Your task to perform on an android device: Open Google Chrome and click the shortcut for Amazon.com Image 0: 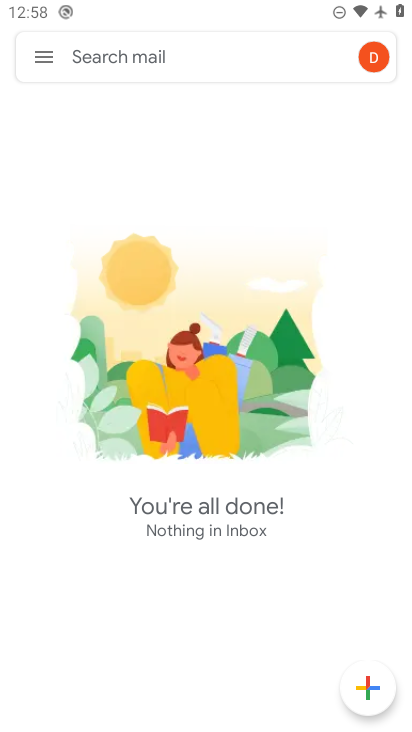
Step 0: press home button
Your task to perform on an android device: Open Google Chrome and click the shortcut for Amazon.com Image 1: 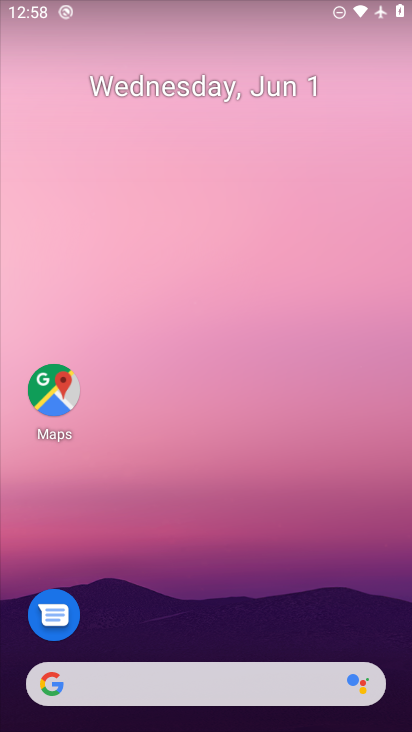
Step 1: drag from (279, 625) to (234, 128)
Your task to perform on an android device: Open Google Chrome and click the shortcut for Amazon.com Image 2: 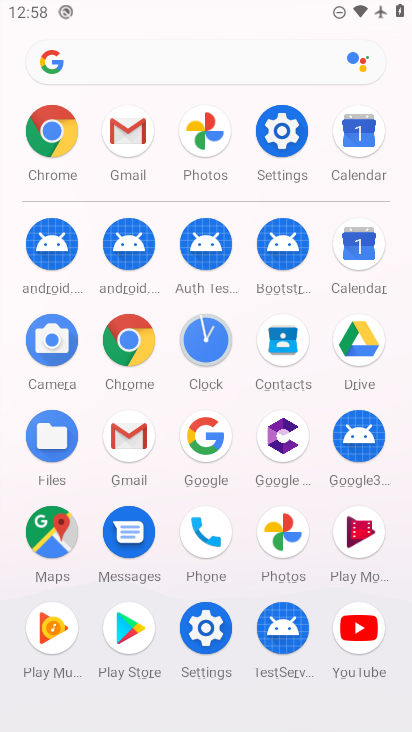
Step 2: click (133, 363)
Your task to perform on an android device: Open Google Chrome and click the shortcut for Amazon.com Image 3: 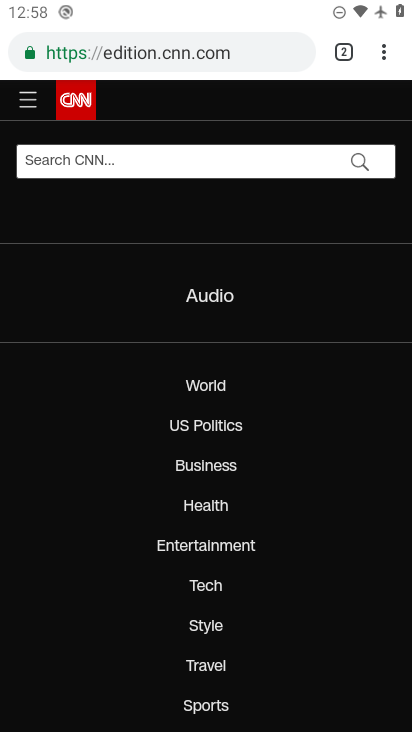
Step 3: click (381, 61)
Your task to perform on an android device: Open Google Chrome and click the shortcut for Amazon.com Image 4: 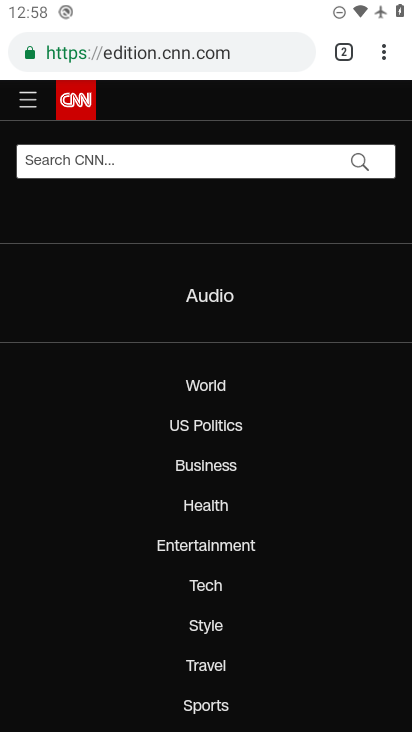
Step 4: click (388, 52)
Your task to perform on an android device: Open Google Chrome and click the shortcut for Amazon.com Image 5: 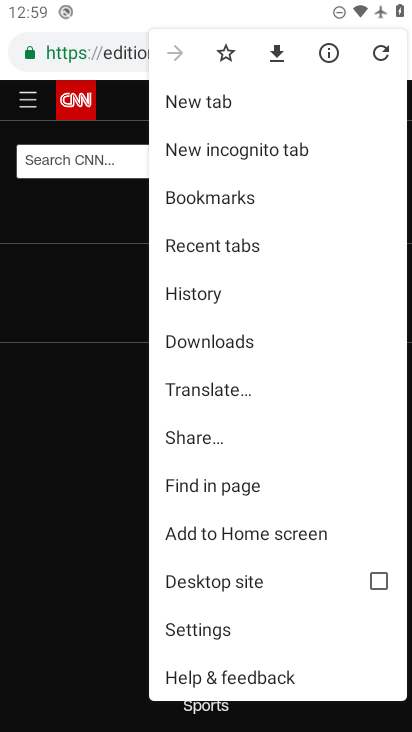
Step 5: click (86, 134)
Your task to perform on an android device: Open Google Chrome and click the shortcut for Amazon.com Image 6: 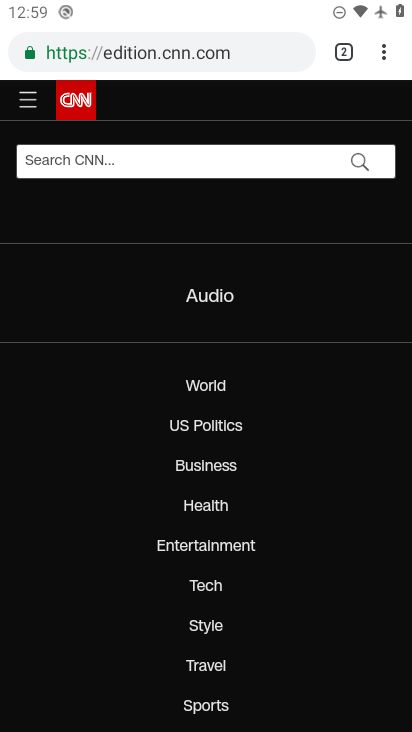
Step 6: click (236, 49)
Your task to perform on an android device: Open Google Chrome and click the shortcut for Amazon.com Image 7: 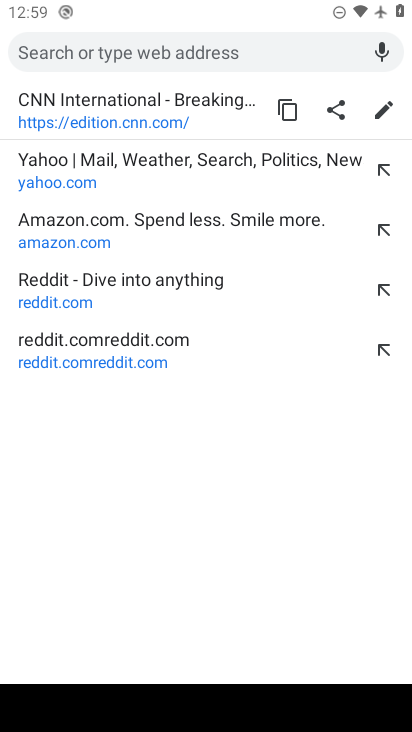
Step 7: type "amazon"
Your task to perform on an android device: Open Google Chrome and click the shortcut for Amazon.com Image 8: 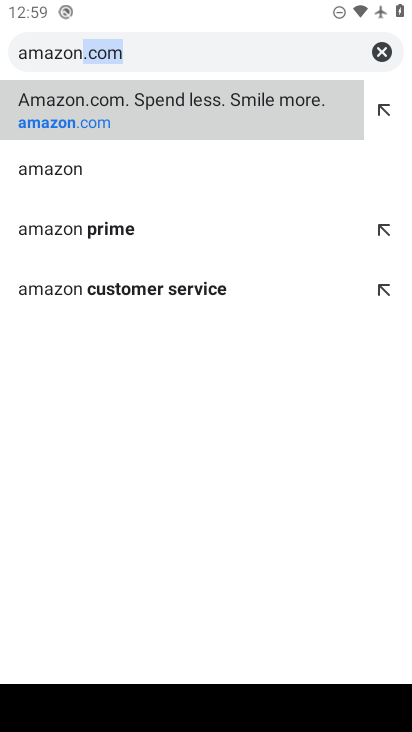
Step 8: click (144, 133)
Your task to perform on an android device: Open Google Chrome and click the shortcut for Amazon.com Image 9: 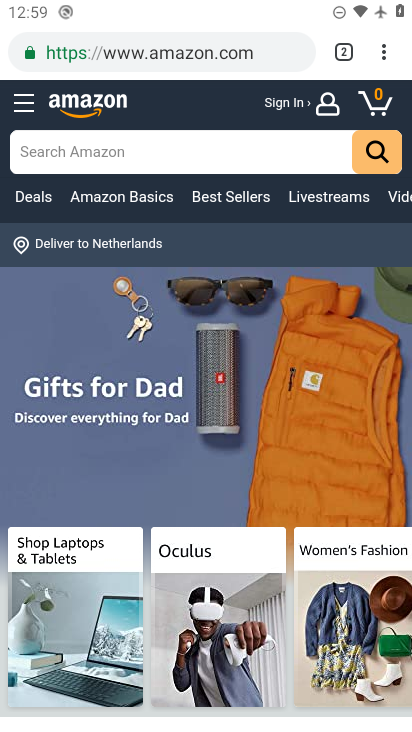
Step 9: click (384, 50)
Your task to perform on an android device: Open Google Chrome and click the shortcut for Amazon.com Image 10: 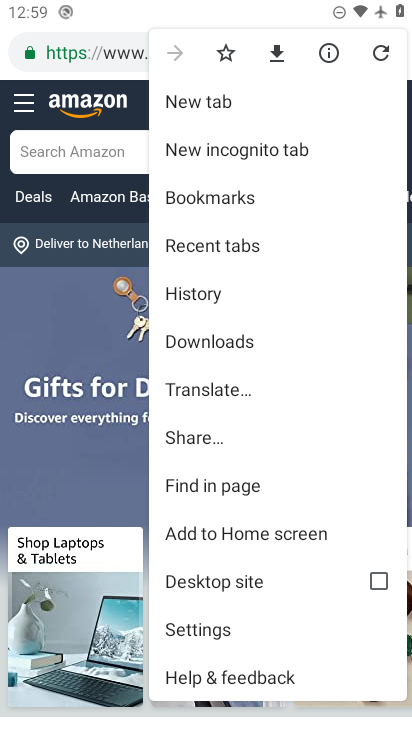
Step 10: click (276, 535)
Your task to perform on an android device: Open Google Chrome and click the shortcut for Amazon.com Image 11: 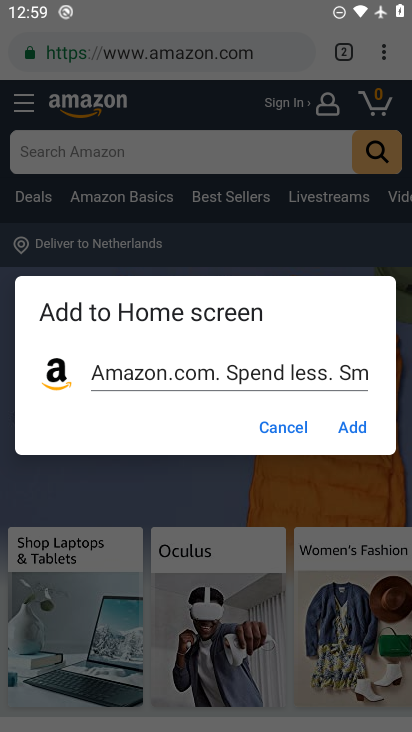
Step 11: click (360, 428)
Your task to perform on an android device: Open Google Chrome and click the shortcut for Amazon.com Image 12: 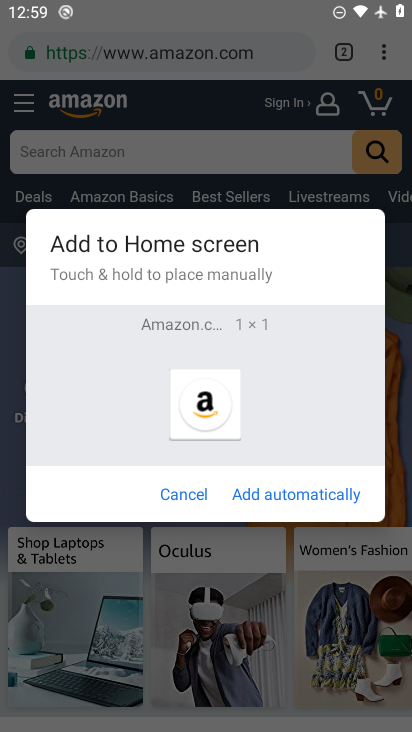
Step 12: click (307, 497)
Your task to perform on an android device: Open Google Chrome and click the shortcut for Amazon.com Image 13: 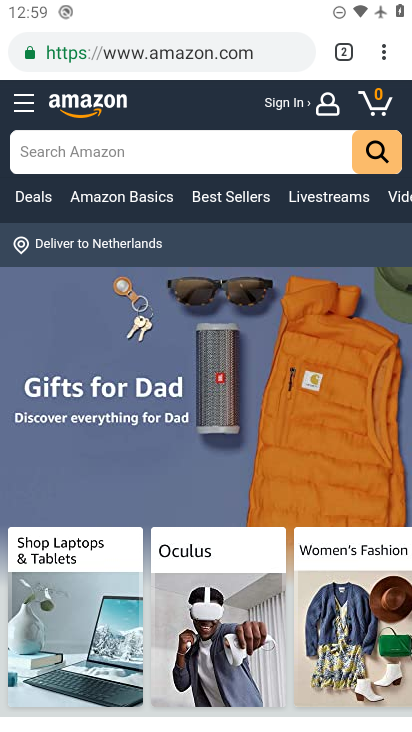
Step 13: task complete